Your task to perform on an android device: Go to Reddit.com Image 0: 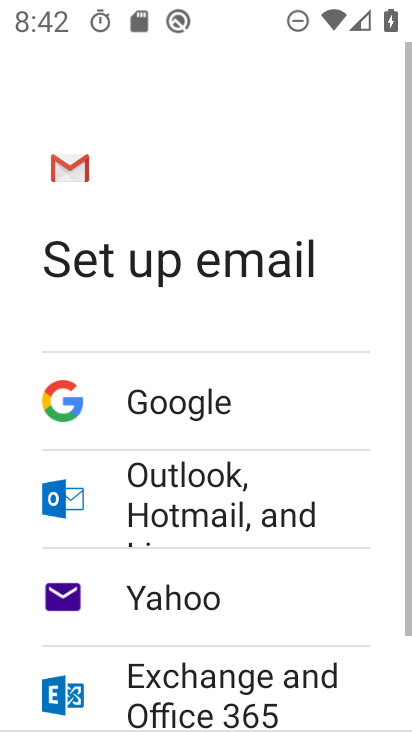
Step 0: press home button
Your task to perform on an android device: Go to Reddit.com Image 1: 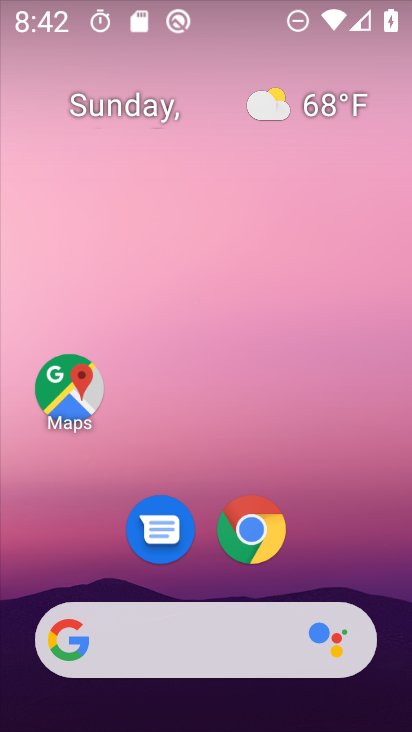
Step 1: click (248, 521)
Your task to perform on an android device: Go to Reddit.com Image 2: 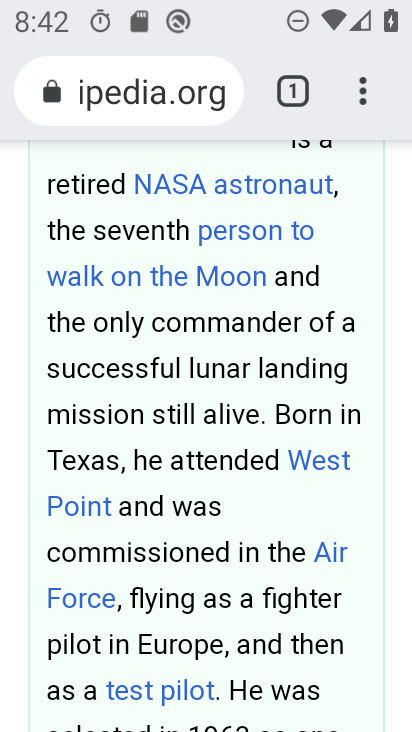
Step 2: click (292, 78)
Your task to perform on an android device: Go to Reddit.com Image 3: 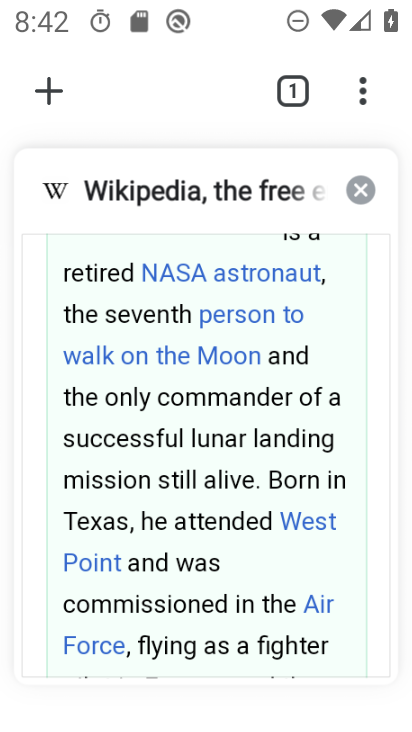
Step 3: click (53, 95)
Your task to perform on an android device: Go to Reddit.com Image 4: 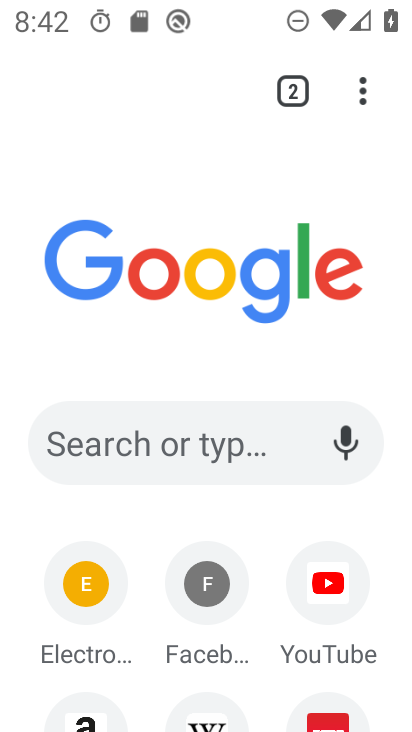
Step 4: click (137, 445)
Your task to perform on an android device: Go to Reddit.com Image 5: 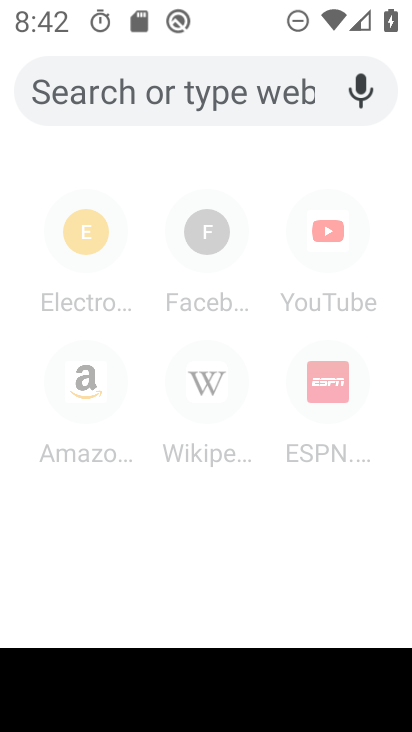
Step 5: type "reddit"
Your task to perform on an android device: Go to Reddit.com Image 6: 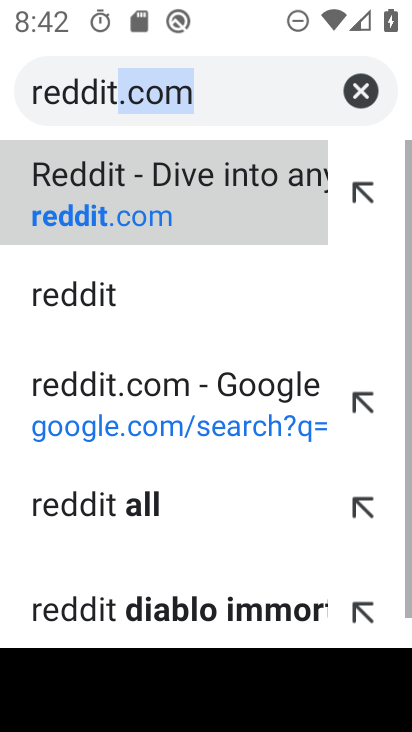
Step 6: type ""
Your task to perform on an android device: Go to Reddit.com Image 7: 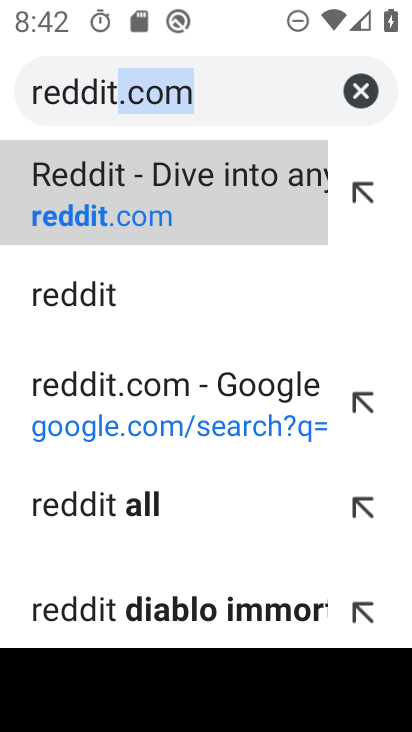
Step 7: click (200, 204)
Your task to perform on an android device: Go to Reddit.com Image 8: 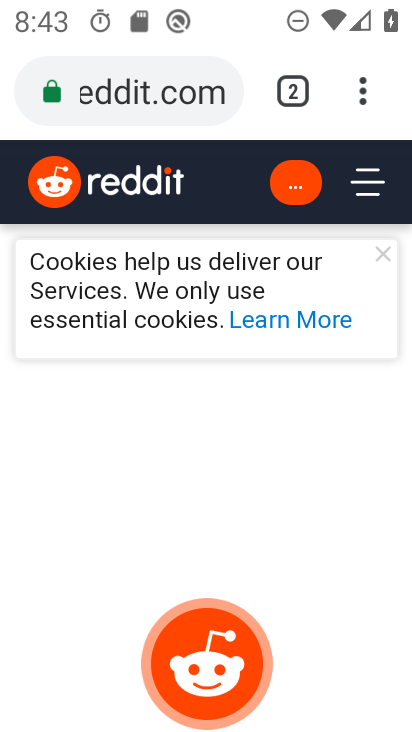
Step 8: drag from (307, 652) to (358, 276)
Your task to perform on an android device: Go to Reddit.com Image 9: 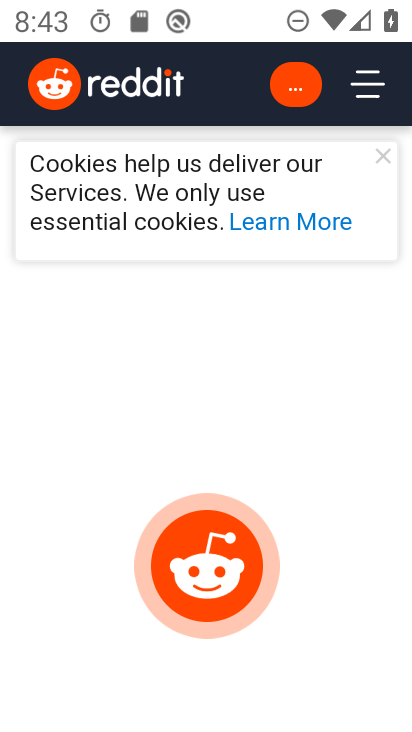
Step 9: click (384, 151)
Your task to perform on an android device: Go to Reddit.com Image 10: 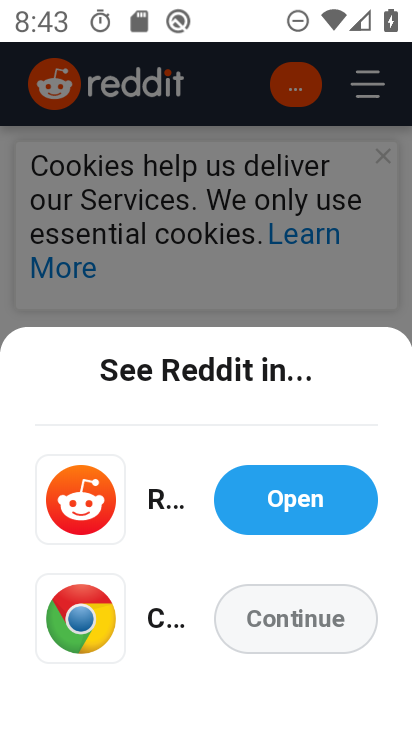
Step 10: drag from (333, 607) to (349, 387)
Your task to perform on an android device: Go to Reddit.com Image 11: 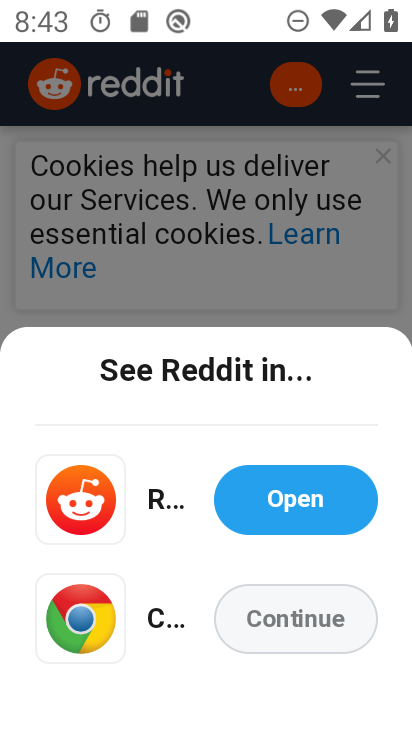
Step 11: click (311, 624)
Your task to perform on an android device: Go to Reddit.com Image 12: 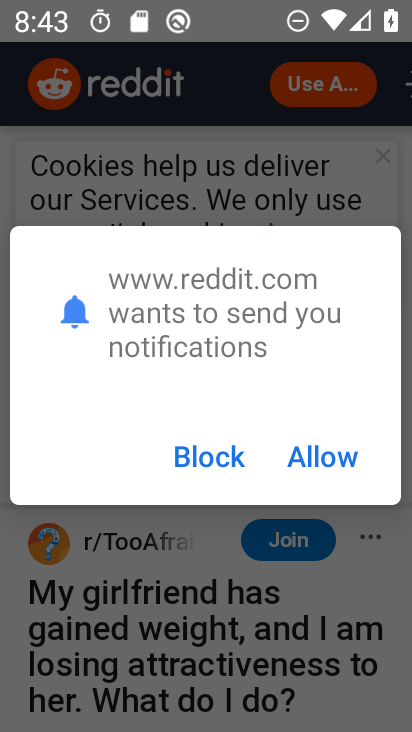
Step 12: click (206, 458)
Your task to perform on an android device: Go to Reddit.com Image 13: 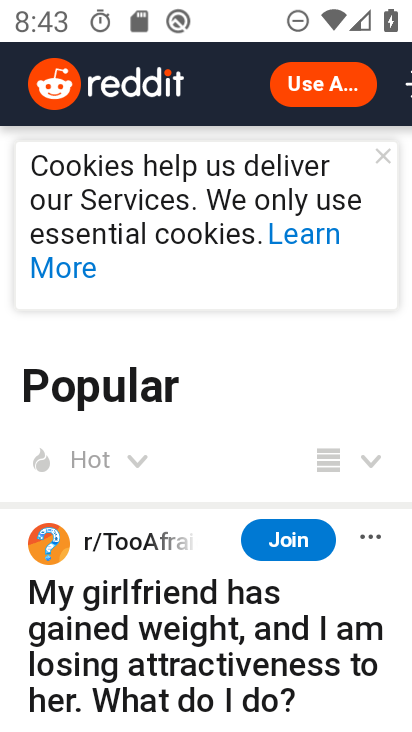
Step 13: task complete